Your task to perform on an android device: Add "energizer triple a" to the cart on newegg, then select checkout. Image 0: 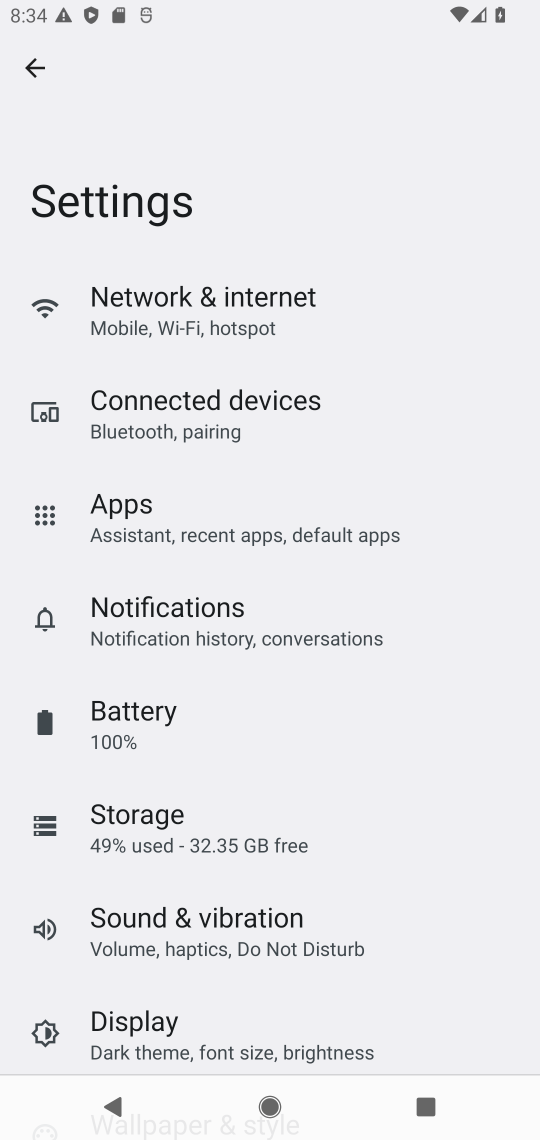
Step 0: press home button
Your task to perform on an android device: Add "energizer triple a" to the cart on newegg, then select checkout. Image 1: 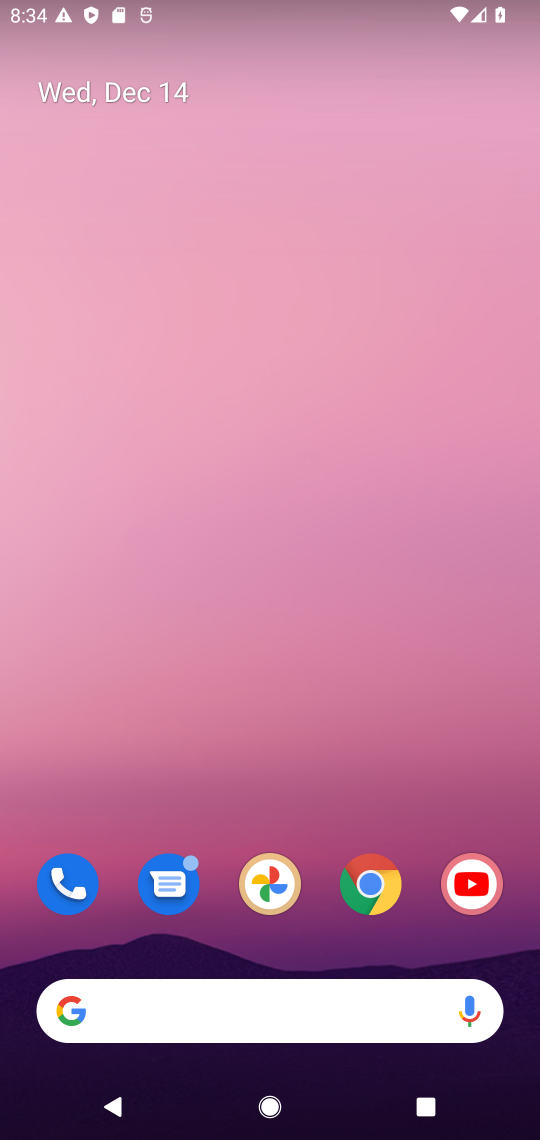
Step 1: click (373, 873)
Your task to perform on an android device: Add "energizer triple a" to the cart on newegg, then select checkout. Image 2: 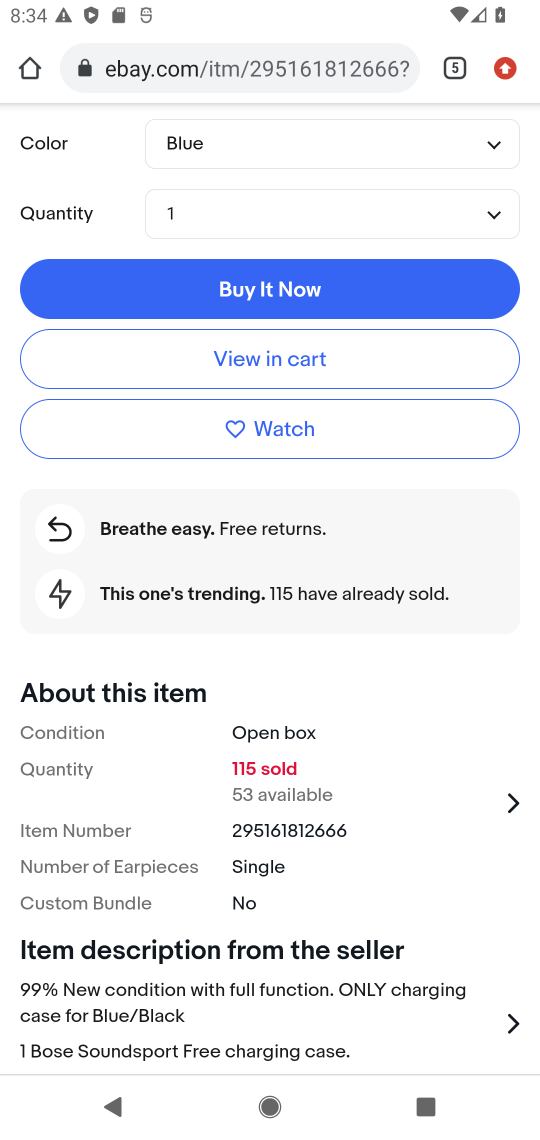
Step 2: click (448, 67)
Your task to perform on an android device: Add "energizer triple a" to the cart on newegg, then select checkout. Image 3: 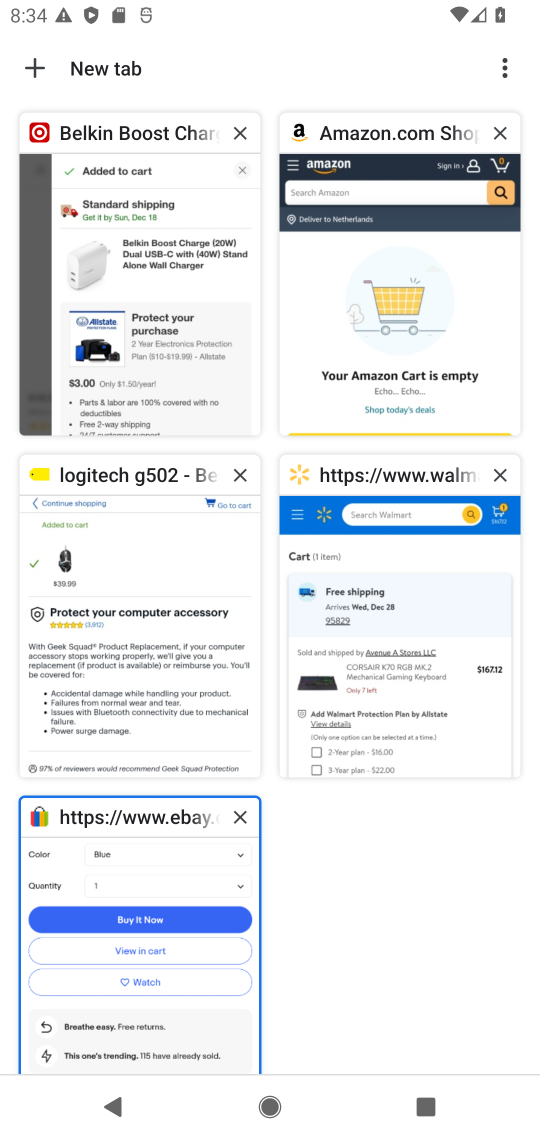
Step 3: click (31, 67)
Your task to perform on an android device: Add "energizer triple a" to the cart on newegg, then select checkout. Image 4: 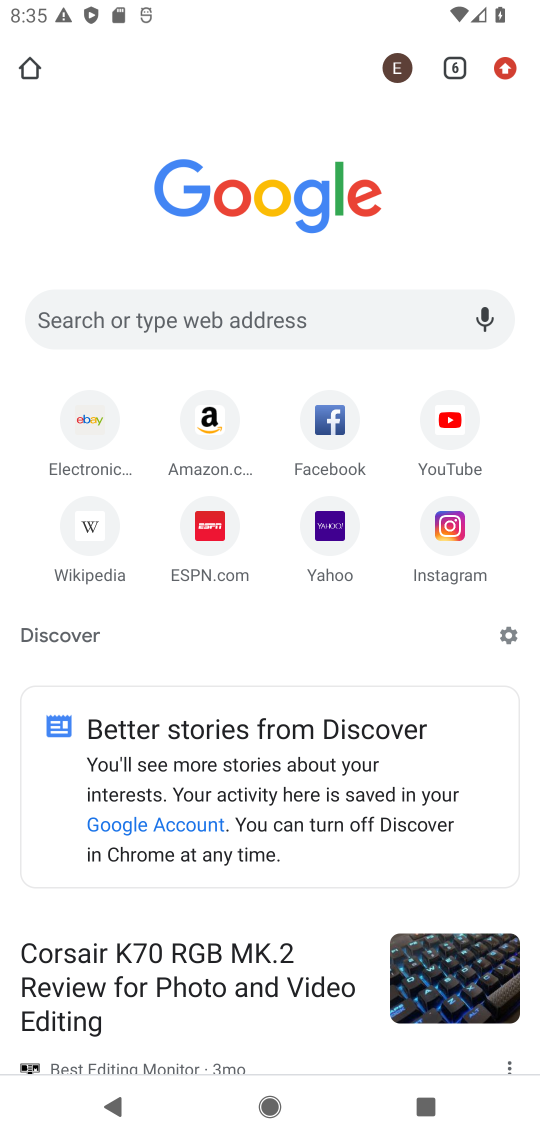
Step 4: click (200, 315)
Your task to perform on an android device: Add "energizer triple a" to the cart on newegg, then select checkout. Image 5: 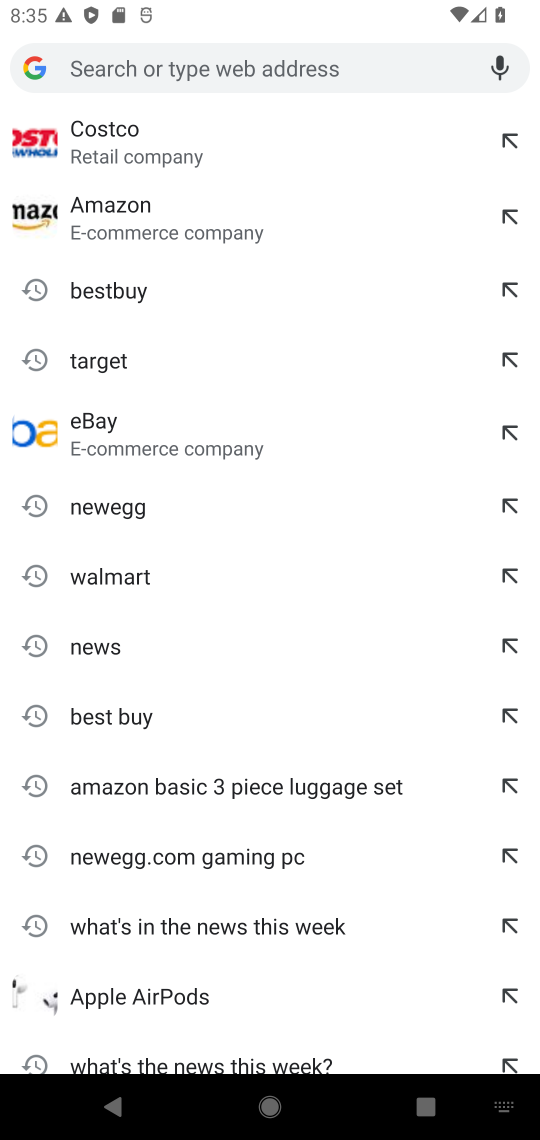
Step 5: click (107, 506)
Your task to perform on an android device: Add "energizer triple a" to the cart on newegg, then select checkout. Image 6: 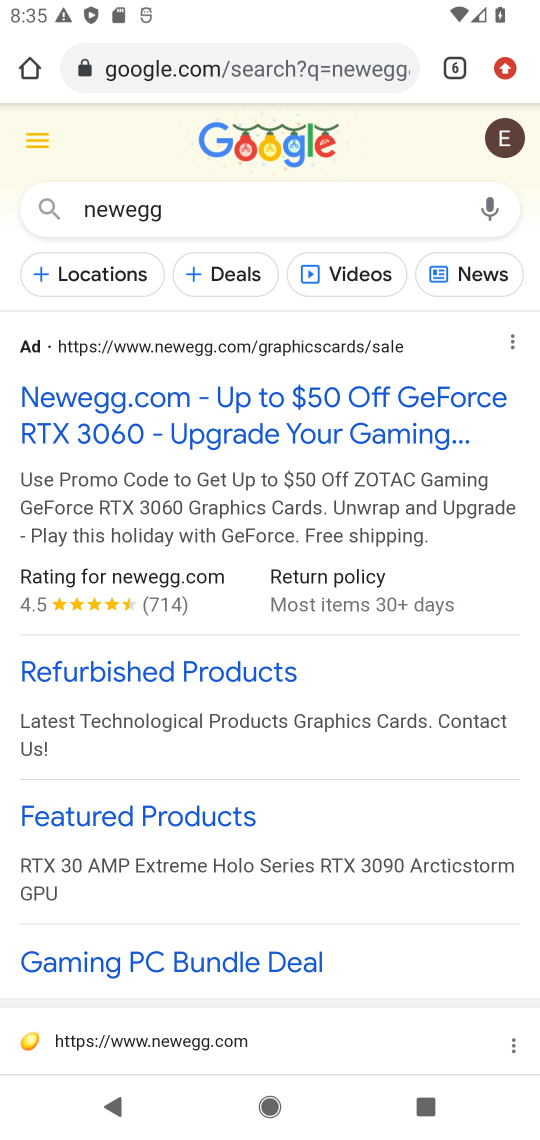
Step 6: drag from (338, 802) to (368, 448)
Your task to perform on an android device: Add "energizer triple a" to the cart on newegg, then select checkout. Image 7: 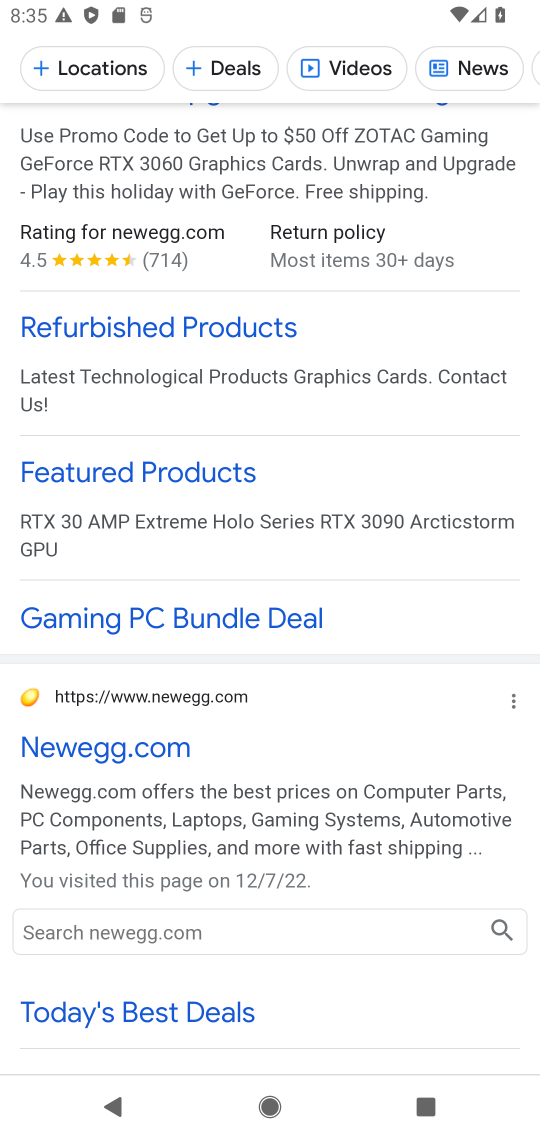
Step 7: click (136, 746)
Your task to perform on an android device: Add "energizer triple a" to the cart on newegg, then select checkout. Image 8: 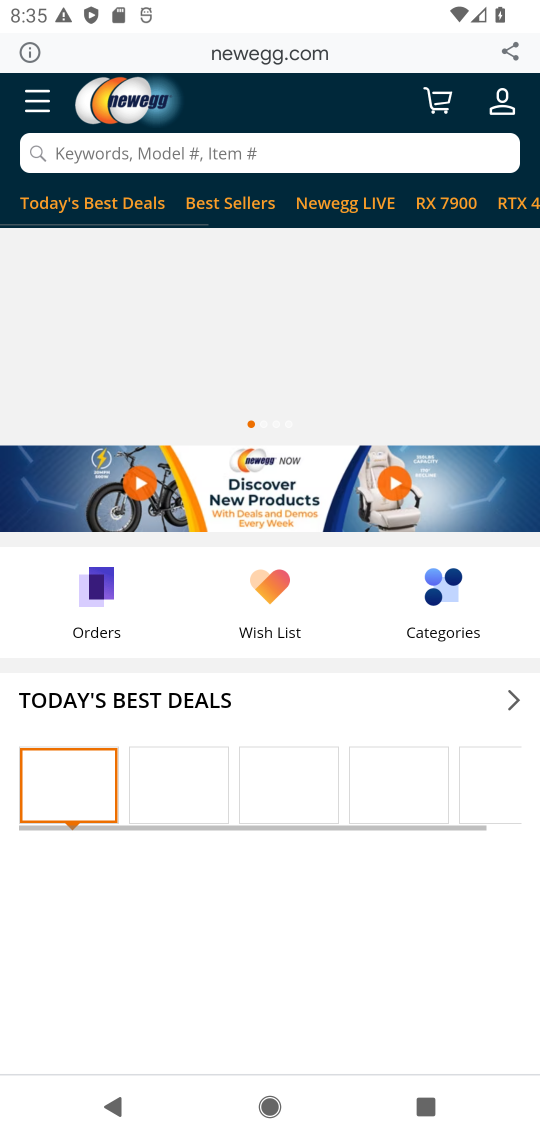
Step 8: click (251, 152)
Your task to perform on an android device: Add "energizer triple a" to the cart on newegg, then select checkout. Image 9: 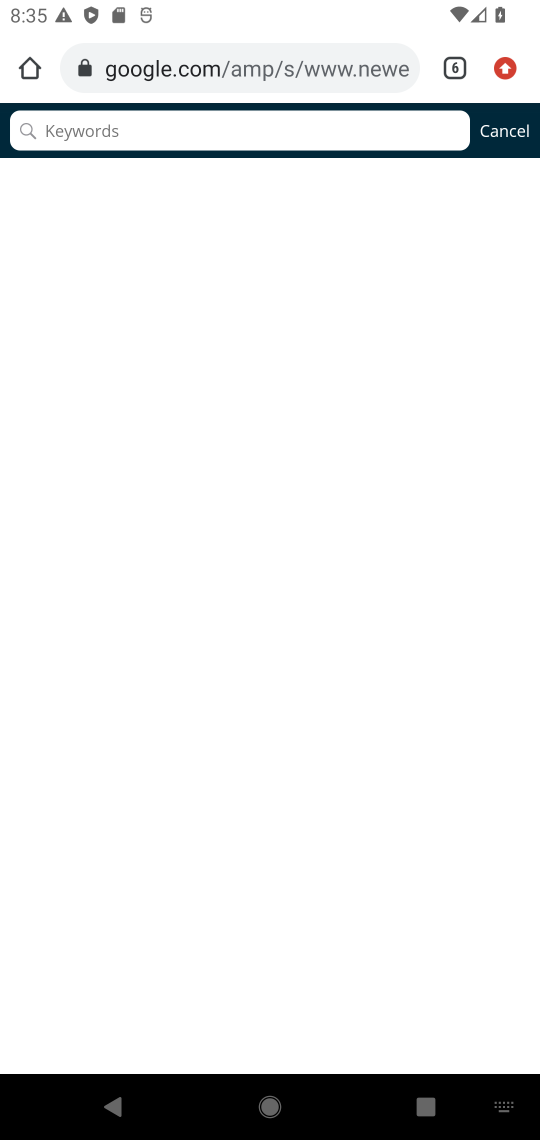
Step 9: type "energizer triple a"
Your task to perform on an android device: Add "energizer triple a" to the cart on newegg, then select checkout. Image 10: 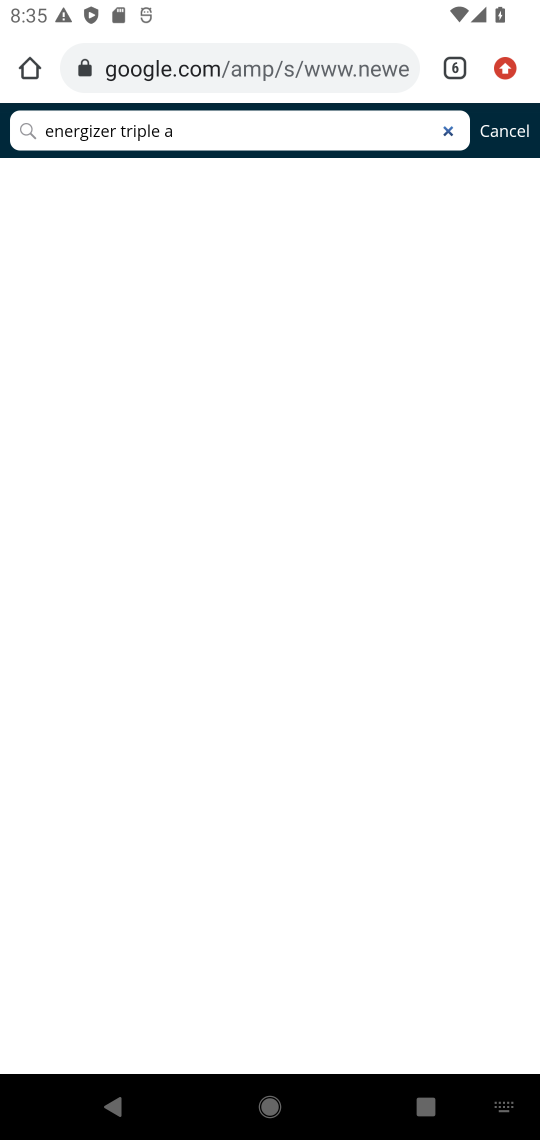
Step 10: press enter
Your task to perform on an android device: Add "energizer triple a" to the cart on newegg, then select checkout. Image 11: 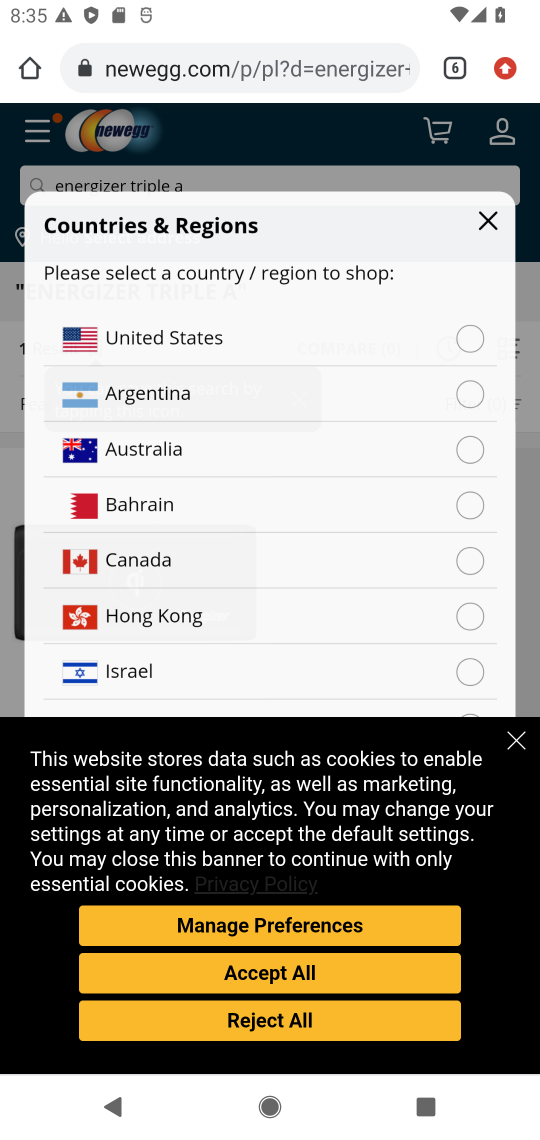
Step 11: click (519, 738)
Your task to perform on an android device: Add "energizer triple a" to the cart on newegg, then select checkout. Image 12: 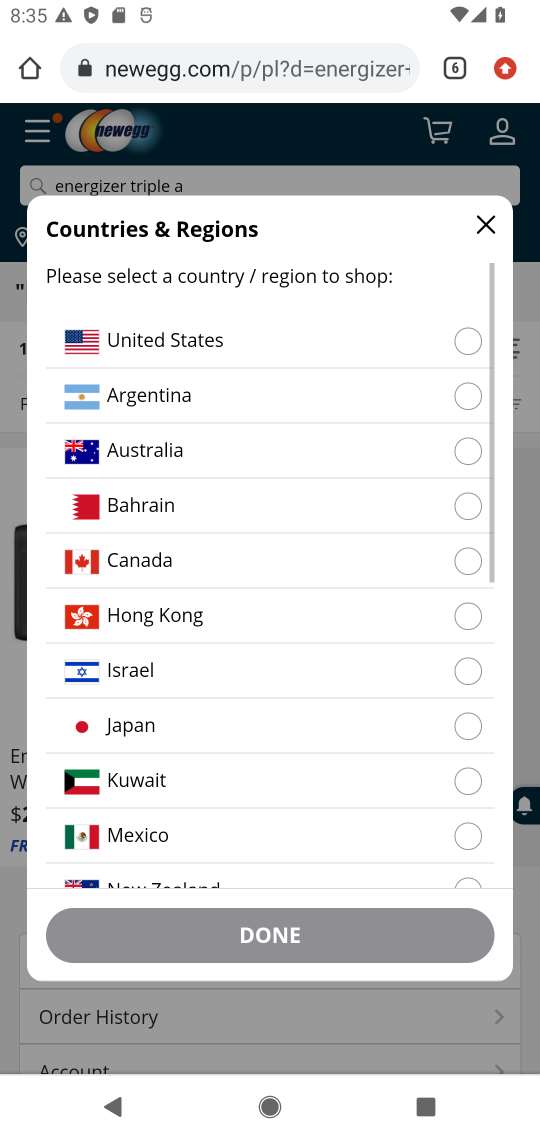
Step 12: click (475, 353)
Your task to perform on an android device: Add "energizer triple a" to the cart on newegg, then select checkout. Image 13: 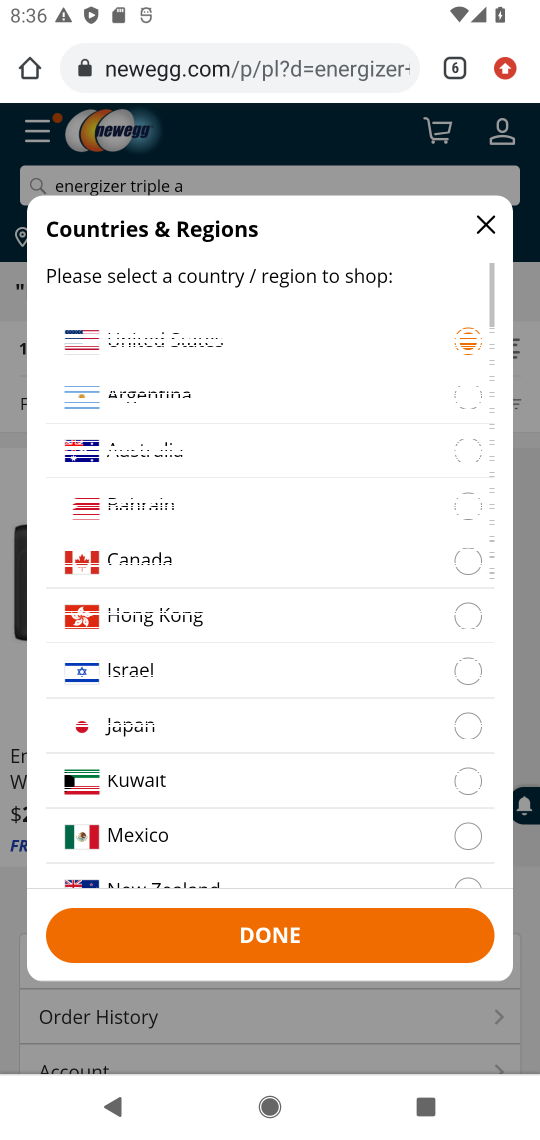
Step 13: click (324, 929)
Your task to perform on an android device: Add "energizer triple a" to the cart on newegg, then select checkout. Image 14: 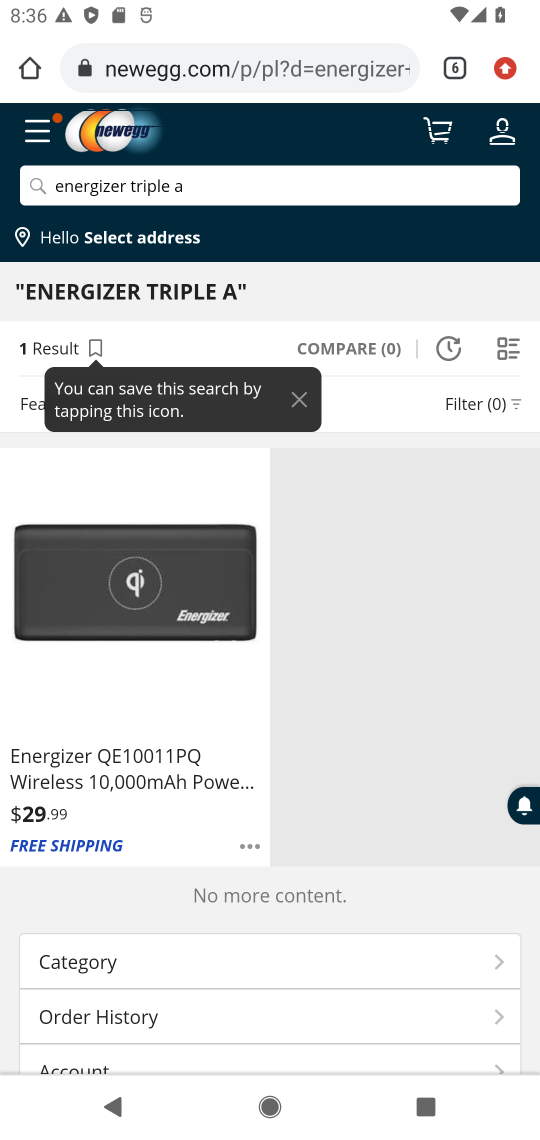
Step 14: click (146, 772)
Your task to perform on an android device: Add "energizer triple a" to the cart on newegg, then select checkout. Image 15: 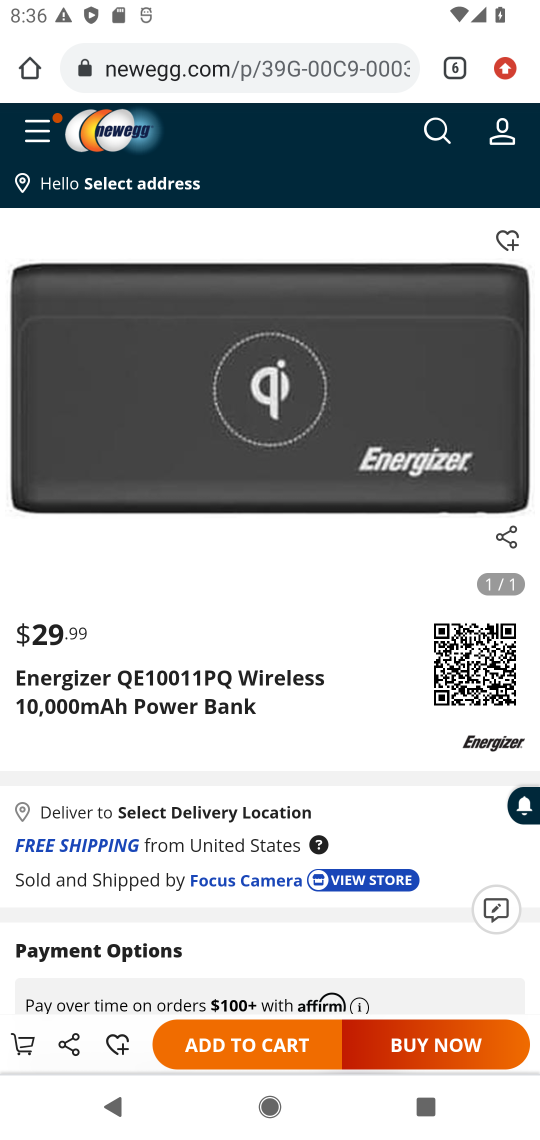
Step 15: click (442, 140)
Your task to perform on an android device: Add "energizer triple a" to the cart on newegg, then select checkout. Image 16: 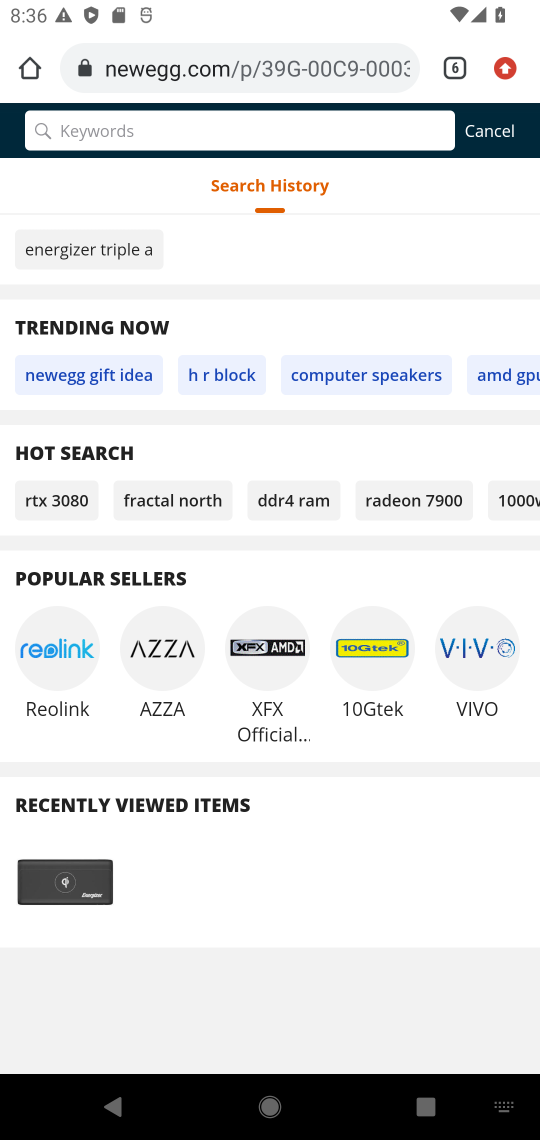
Step 16: type "energizer triple a batteries"
Your task to perform on an android device: Add "energizer triple a" to the cart on newegg, then select checkout. Image 17: 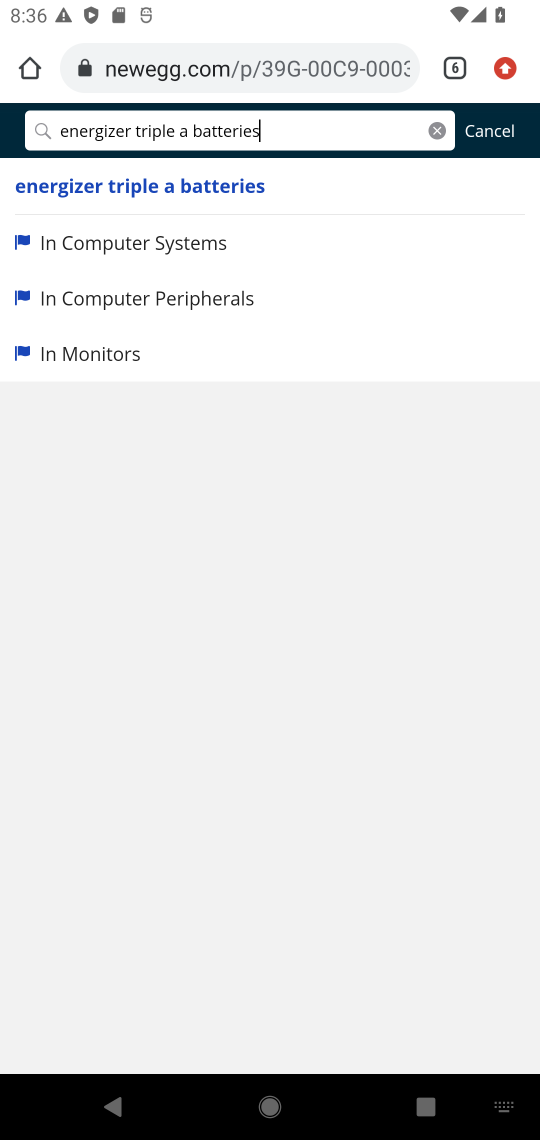
Step 17: click (174, 188)
Your task to perform on an android device: Add "energizer triple a" to the cart on newegg, then select checkout. Image 18: 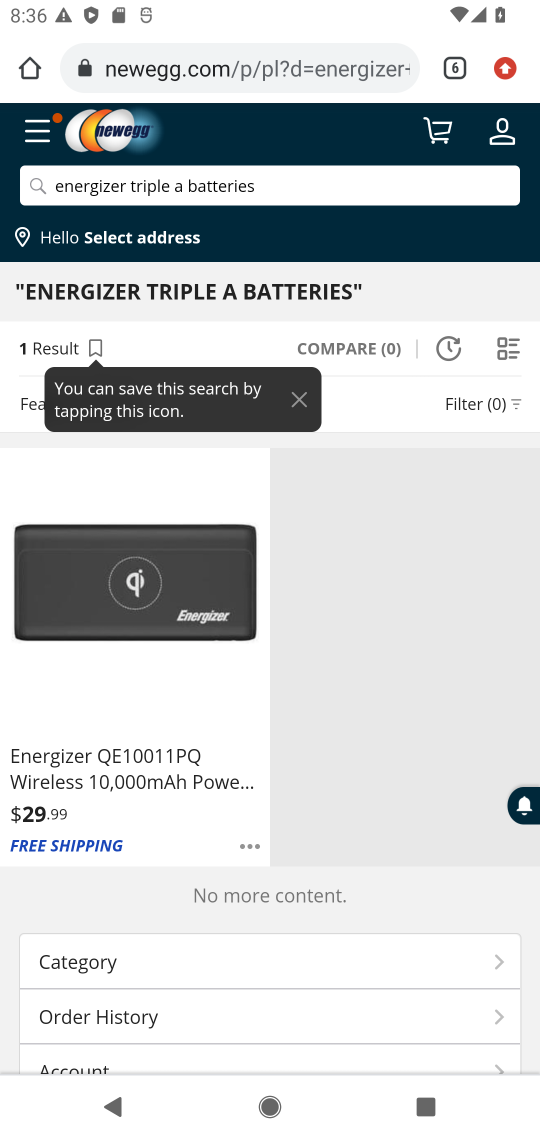
Step 18: task complete